Your task to perform on an android device: Open sound settings Image 0: 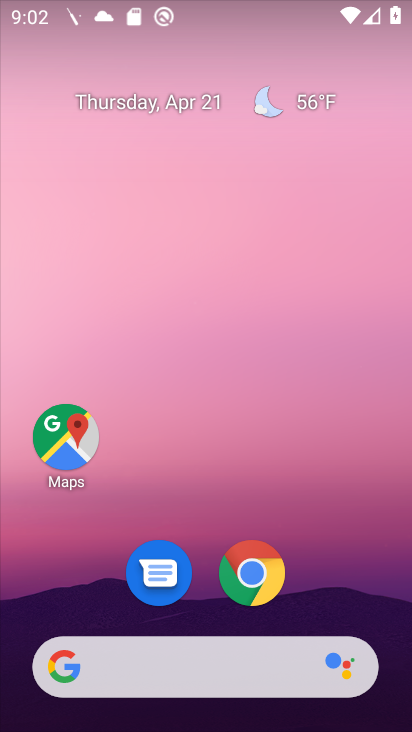
Step 0: drag from (327, 531) to (352, 168)
Your task to perform on an android device: Open sound settings Image 1: 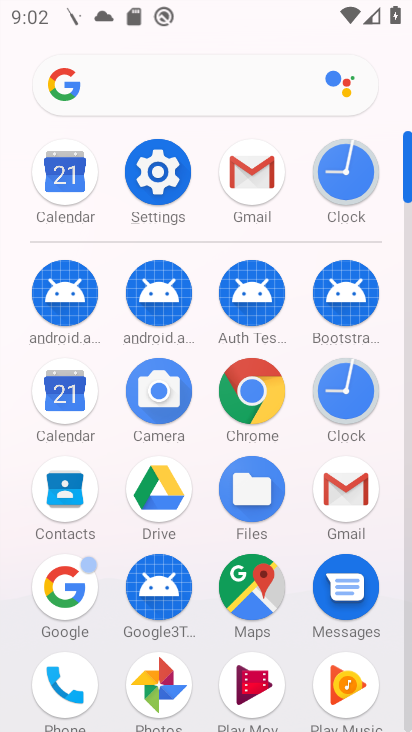
Step 1: click (171, 192)
Your task to perform on an android device: Open sound settings Image 2: 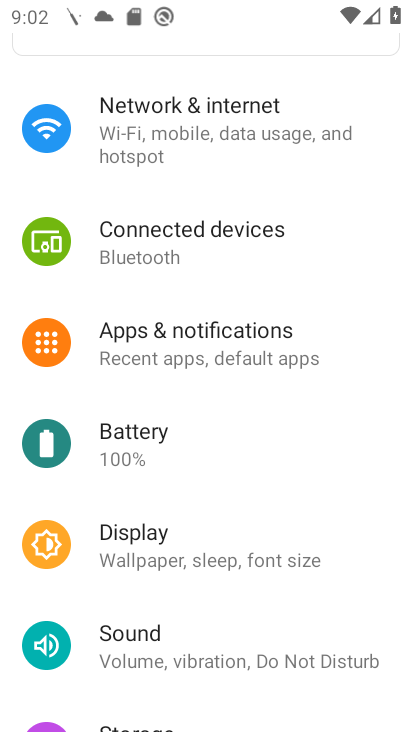
Step 2: click (208, 658)
Your task to perform on an android device: Open sound settings Image 3: 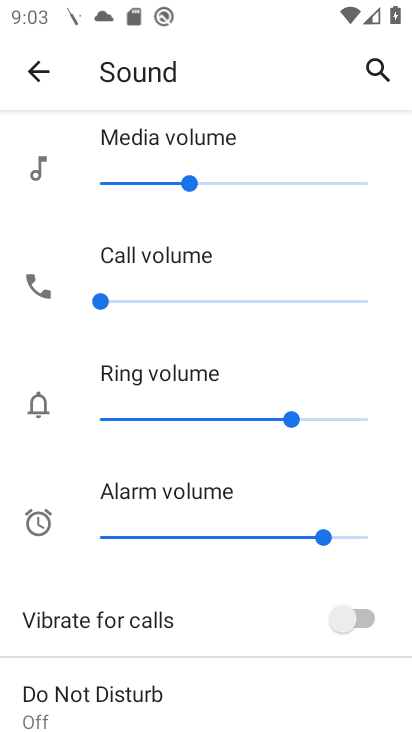
Step 3: task complete